Your task to perform on an android device: Check the news Image 0: 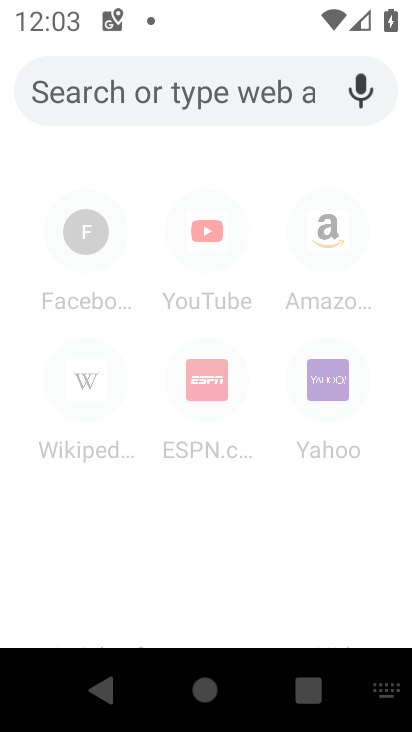
Step 0: press back button
Your task to perform on an android device: Check the news Image 1: 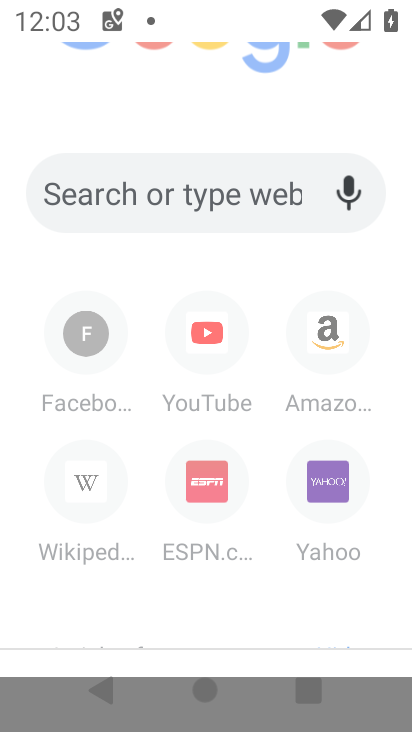
Step 1: press back button
Your task to perform on an android device: Check the news Image 2: 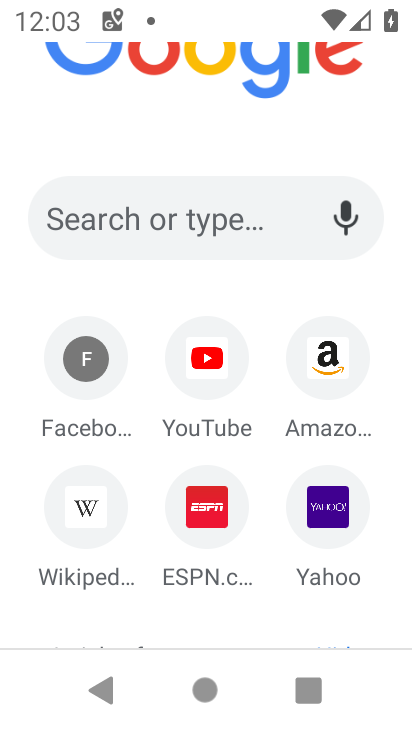
Step 2: press back button
Your task to perform on an android device: Check the news Image 3: 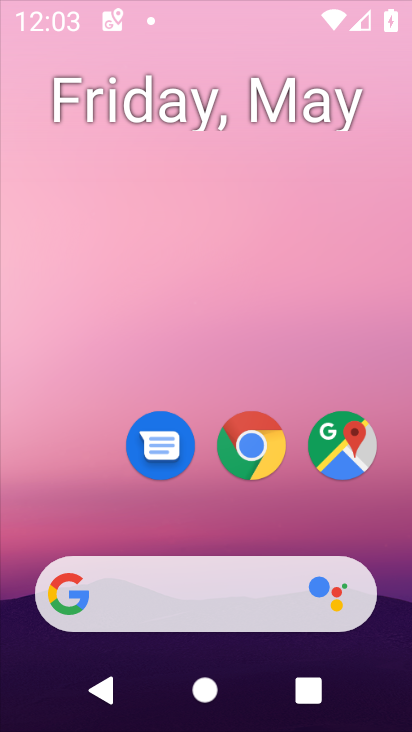
Step 3: press back button
Your task to perform on an android device: Check the news Image 4: 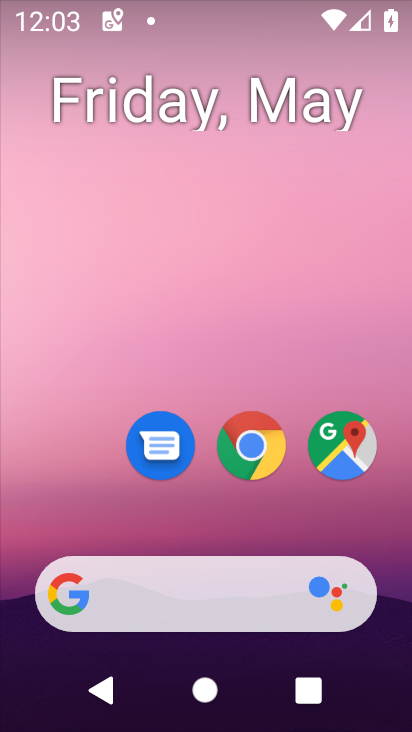
Step 4: press home button
Your task to perform on an android device: Check the news Image 5: 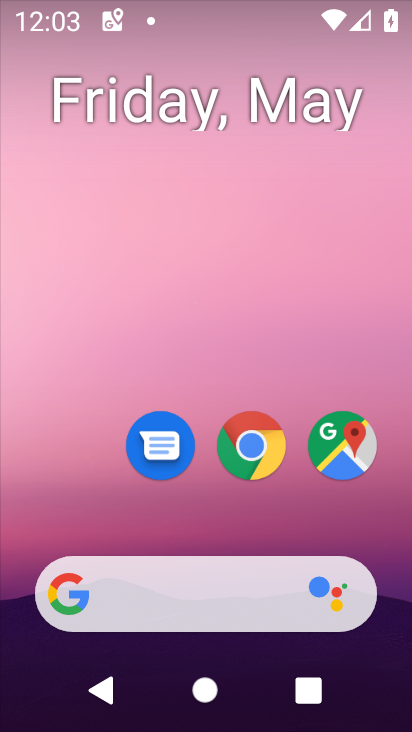
Step 5: drag from (1, 269) to (404, 586)
Your task to perform on an android device: Check the news Image 6: 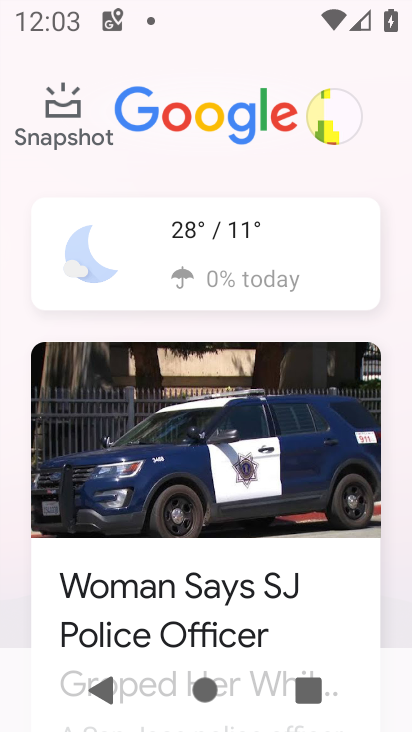
Step 6: click (188, 252)
Your task to perform on an android device: Check the news Image 7: 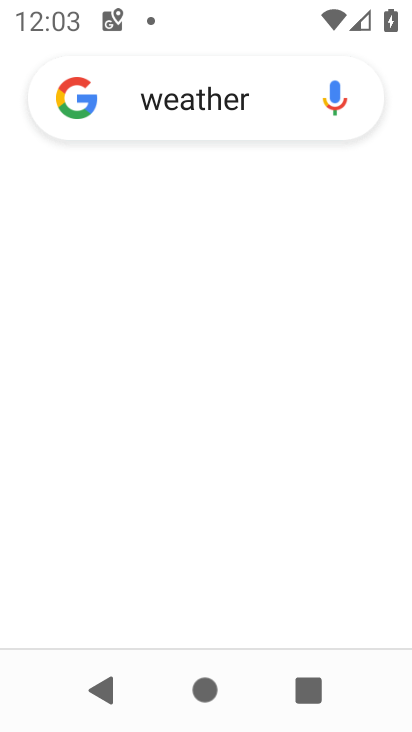
Step 7: click (189, 251)
Your task to perform on an android device: Check the news Image 8: 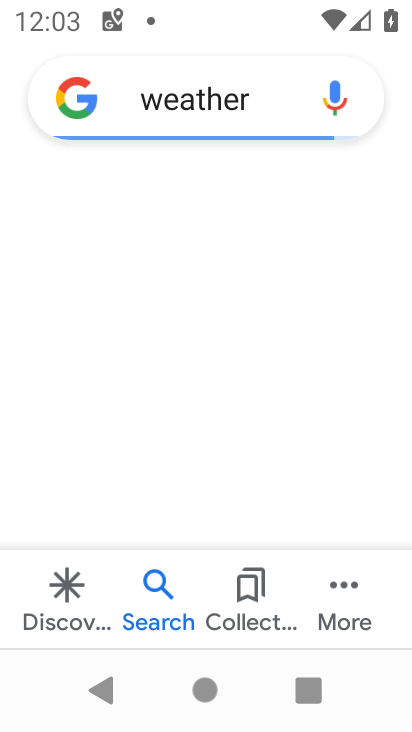
Step 8: press back button
Your task to perform on an android device: Check the news Image 9: 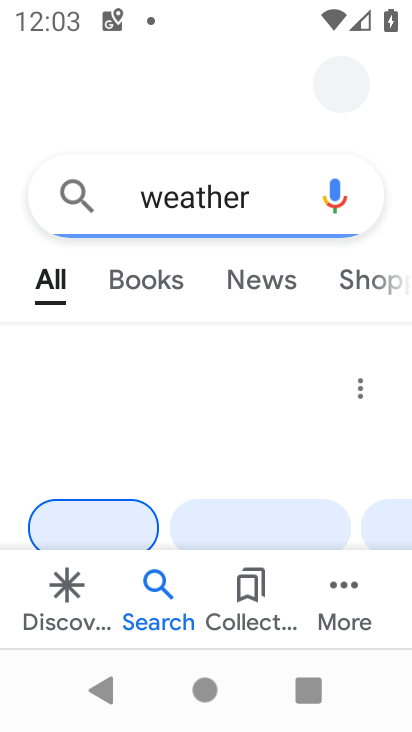
Step 9: press back button
Your task to perform on an android device: Check the news Image 10: 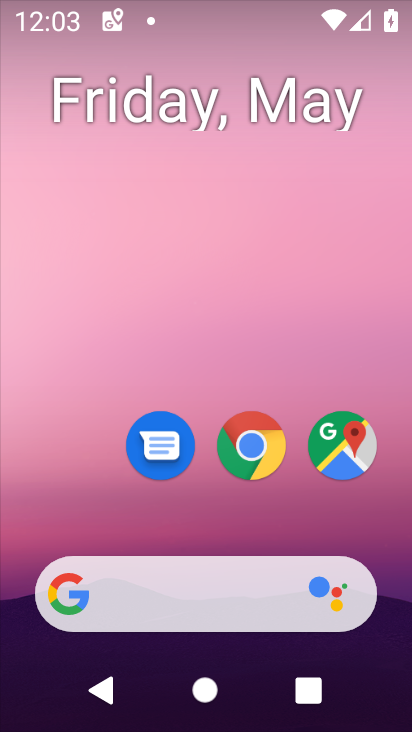
Step 10: click (215, 627)
Your task to perform on an android device: Check the news Image 11: 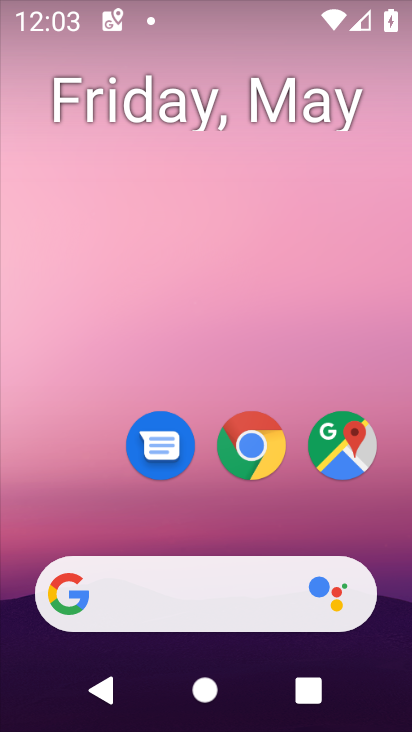
Step 11: drag from (8, 279) to (364, 372)
Your task to perform on an android device: Check the news Image 12: 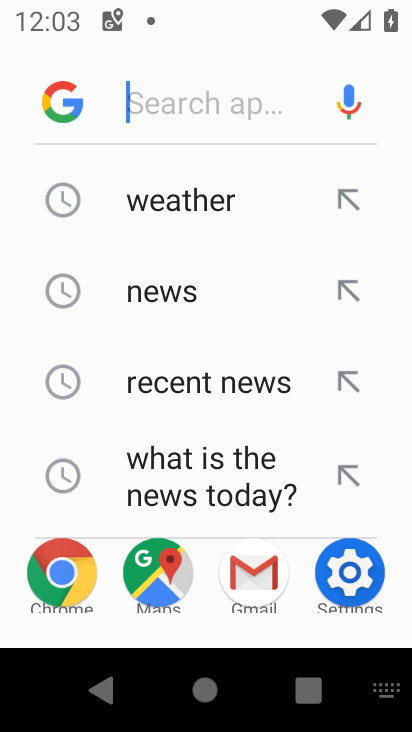
Step 12: click (181, 303)
Your task to perform on an android device: Check the news Image 13: 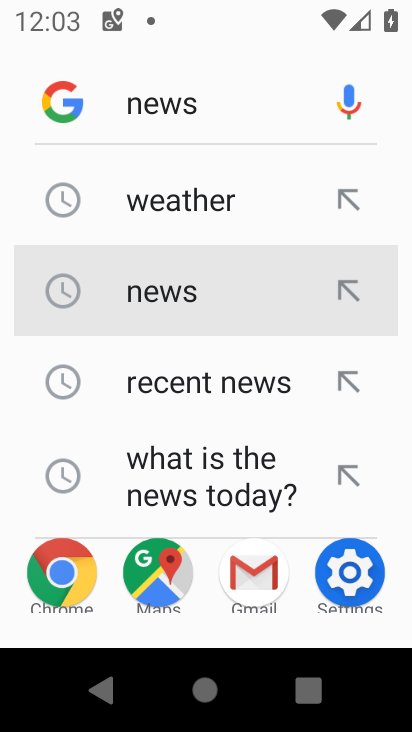
Step 13: click (181, 299)
Your task to perform on an android device: Check the news Image 14: 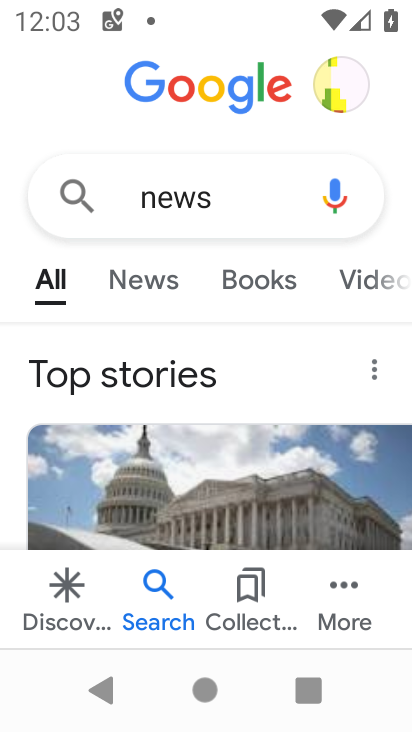
Step 14: task complete